Your task to perform on an android device: Open maps Image 0: 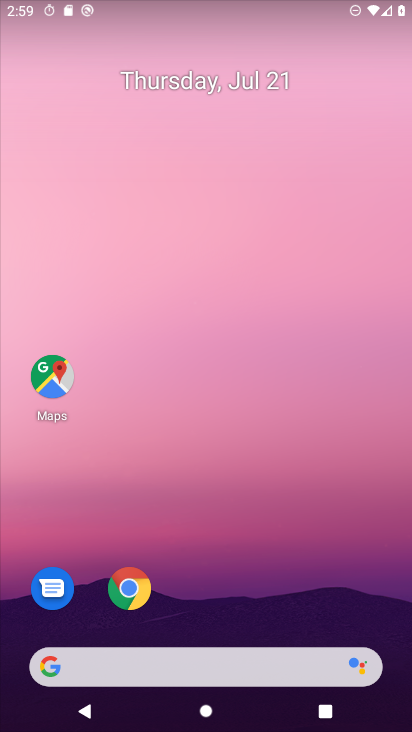
Step 0: drag from (216, 568) to (251, 40)
Your task to perform on an android device: Open maps Image 1: 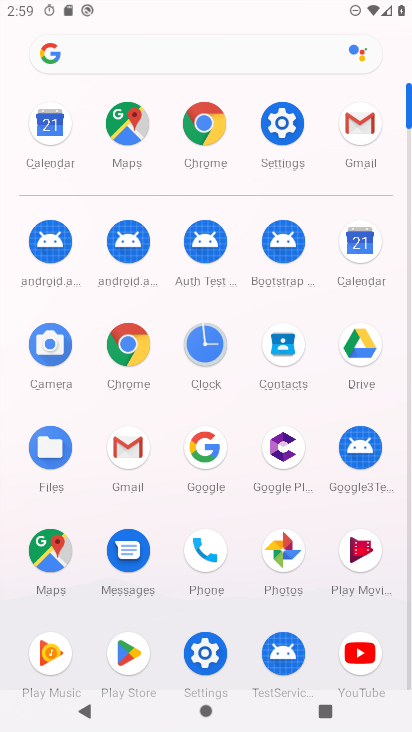
Step 1: click (55, 569)
Your task to perform on an android device: Open maps Image 2: 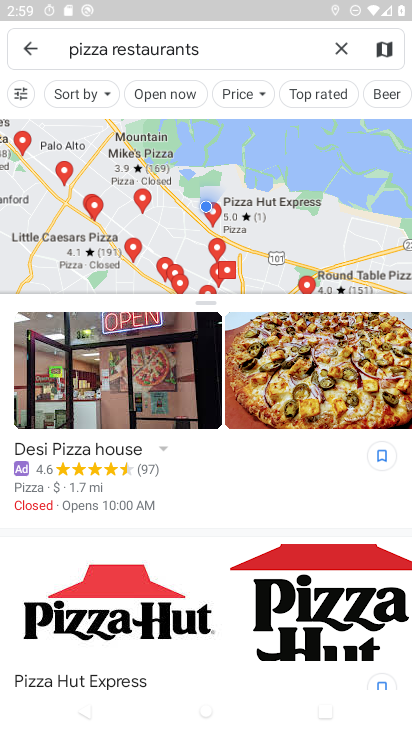
Step 2: task complete